Your task to perform on an android device: Search for vegetarian restaurants on Maps Image 0: 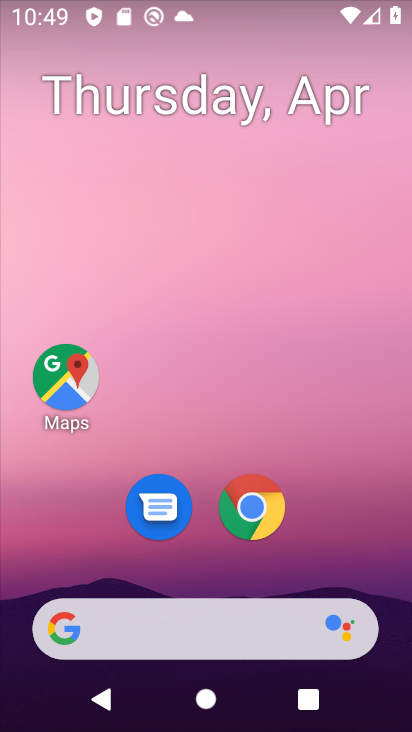
Step 0: click (64, 380)
Your task to perform on an android device: Search for vegetarian restaurants on Maps Image 1: 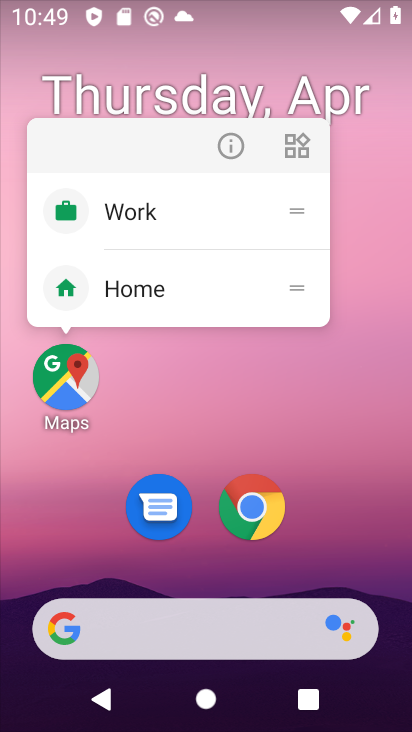
Step 1: click (71, 400)
Your task to perform on an android device: Search for vegetarian restaurants on Maps Image 2: 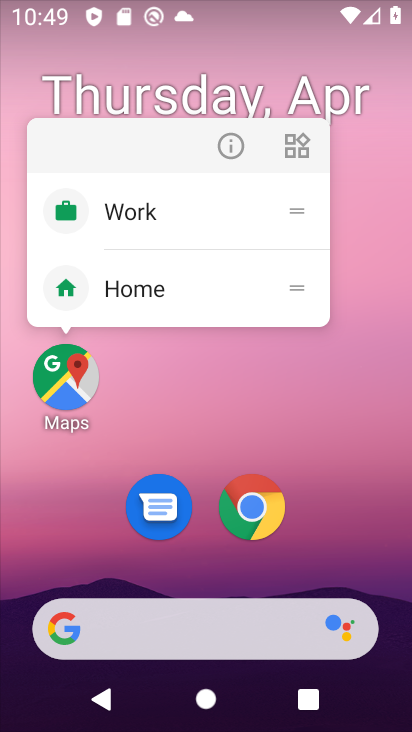
Step 2: click (82, 375)
Your task to perform on an android device: Search for vegetarian restaurants on Maps Image 3: 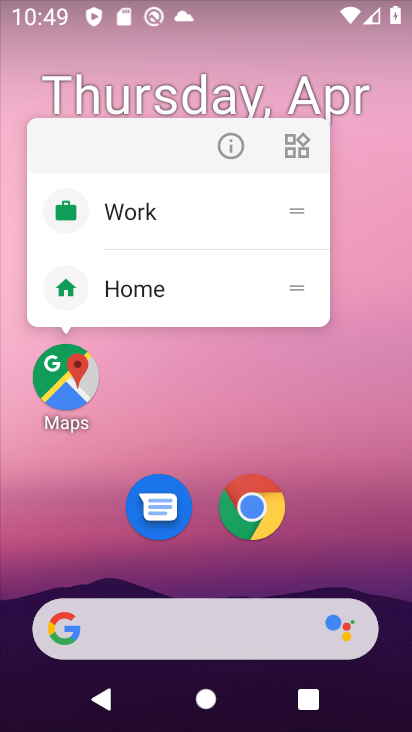
Step 3: click (56, 355)
Your task to perform on an android device: Search for vegetarian restaurants on Maps Image 4: 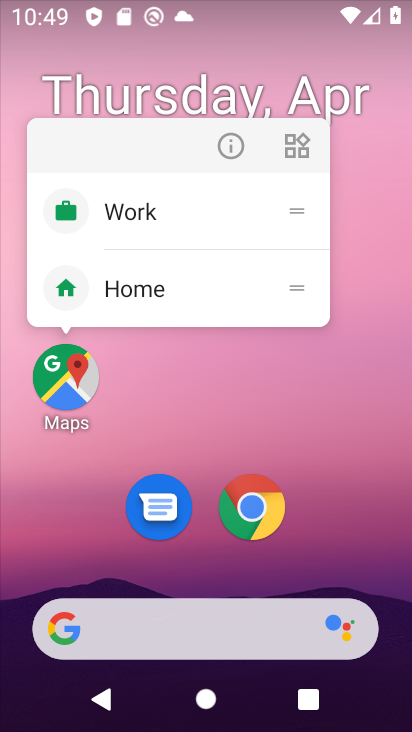
Step 4: drag from (329, 450) to (408, 0)
Your task to perform on an android device: Search for vegetarian restaurants on Maps Image 5: 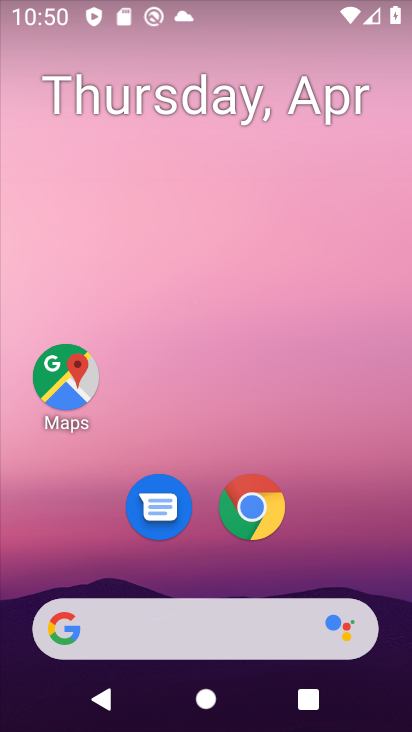
Step 5: drag from (177, 586) to (313, 3)
Your task to perform on an android device: Search for vegetarian restaurants on Maps Image 6: 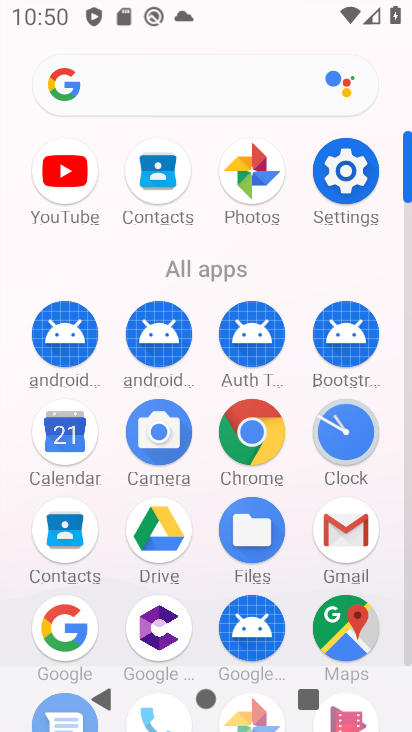
Step 6: click (368, 642)
Your task to perform on an android device: Search for vegetarian restaurants on Maps Image 7: 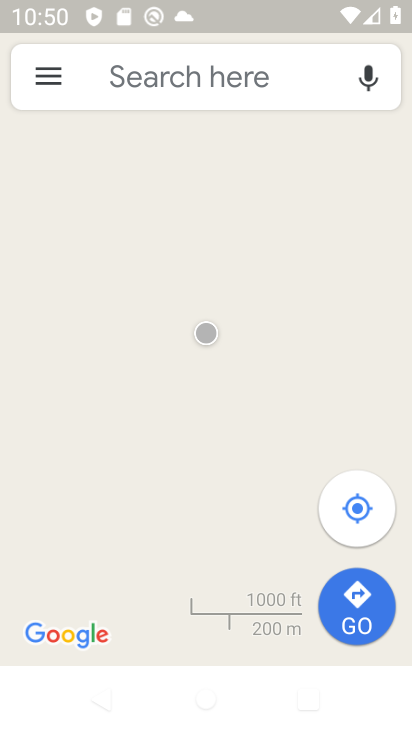
Step 7: click (189, 77)
Your task to perform on an android device: Search for vegetarian restaurants on Maps Image 8: 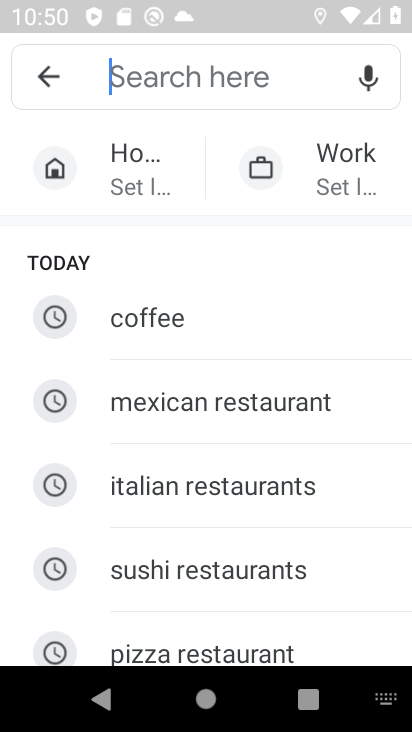
Step 8: type "vegetarian restaurants"
Your task to perform on an android device: Search for vegetarian restaurants on Maps Image 9: 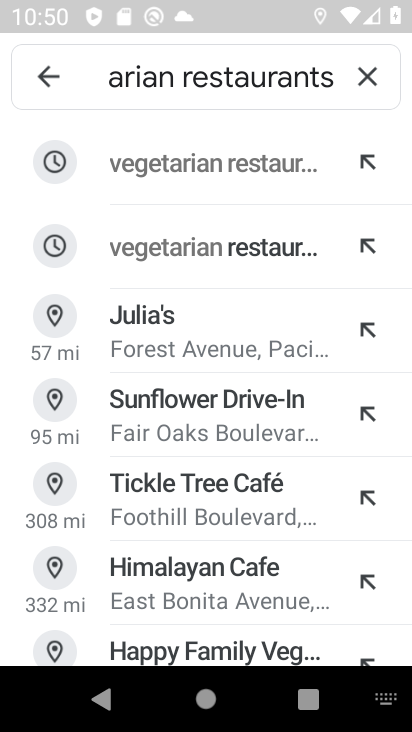
Step 9: click (142, 164)
Your task to perform on an android device: Search for vegetarian restaurants on Maps Image 10: 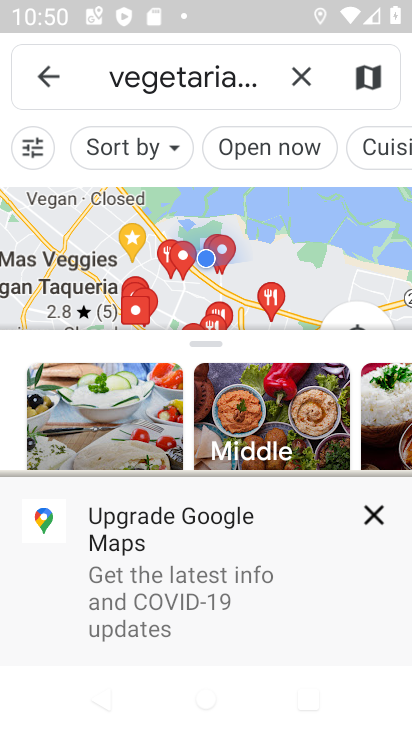
Step 10: click (361, 526)
Your task to perform on an android device: Search for vegetarian restaurants on Maps Image 11: 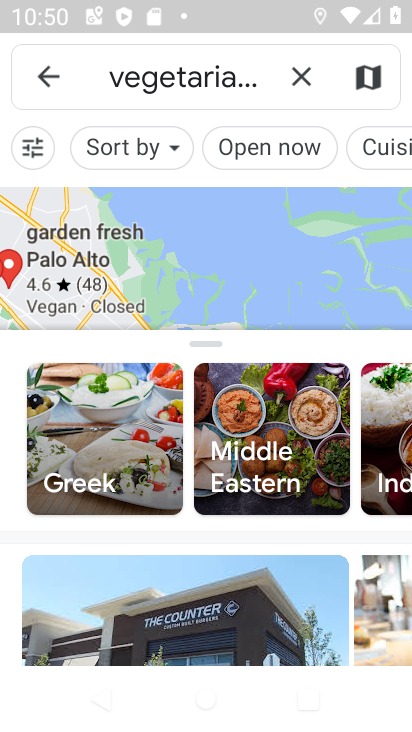
Step 11: task complete